Your task to perform on an android device: Toggle the flashlight Image 0: 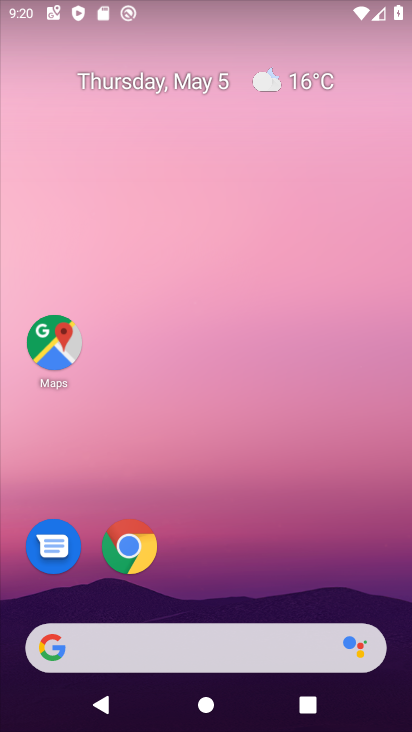
Step 0: drag from (244, 6) to (178, 407)
Your task to perform on an android device: Toggle the flashlight Image 1: 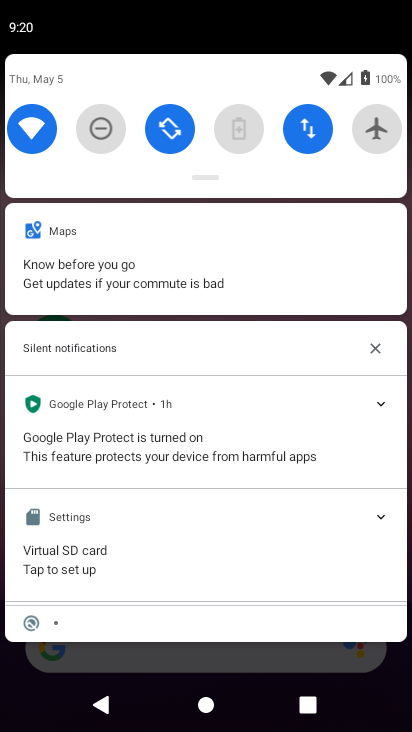
Step 1: task complete